Your task to perform on an android device: toggle notification dots Image 0: 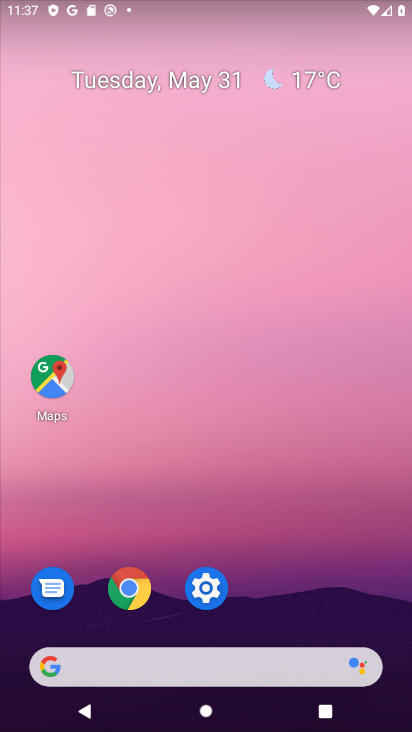
Step 0: press home button
Your task to perform on an android device: toggle notification dots Image 1: 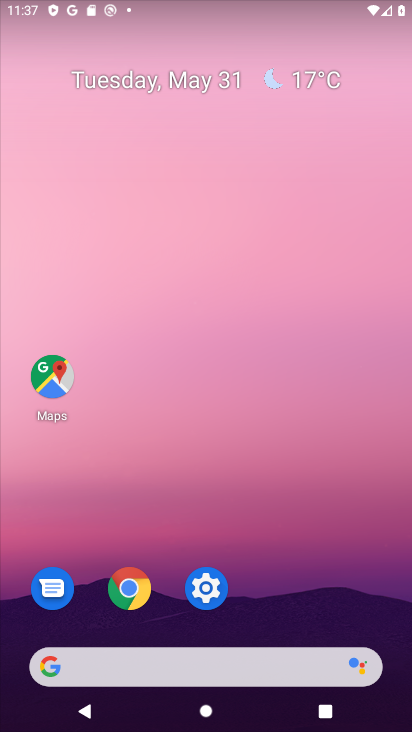
Step 1: click (196, 574)
Your task to perform on an android device: toggle notification dots Image 2: 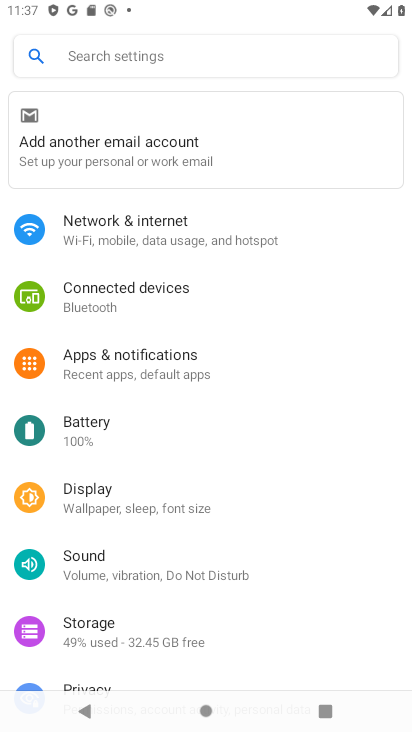
Step 2: click (123, 57)
Your task to perform on an android device: toggle notification dots Image 3: 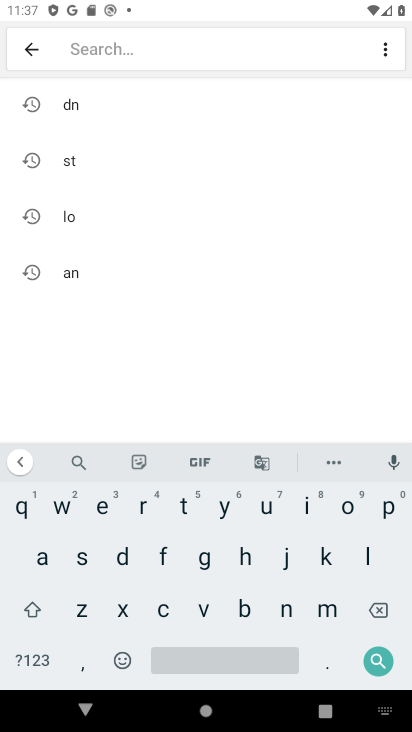
Step 3: click (120, 554)
Your task to perform on an android device: toggle notification dots Image 4: 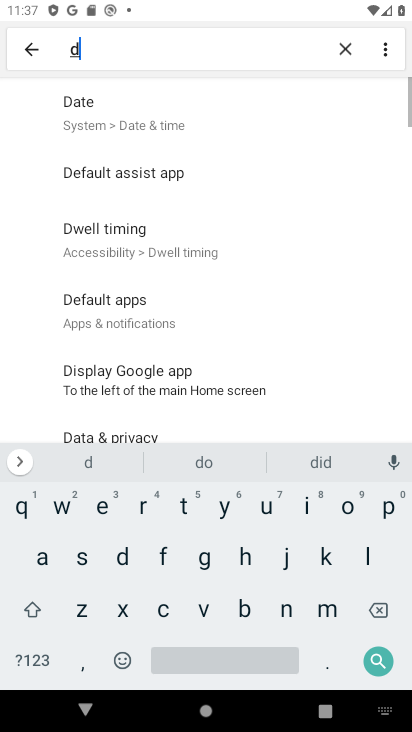
Step 4: click (355, 505)
Your task to perform on an android device: toggle notification dots Image 5: 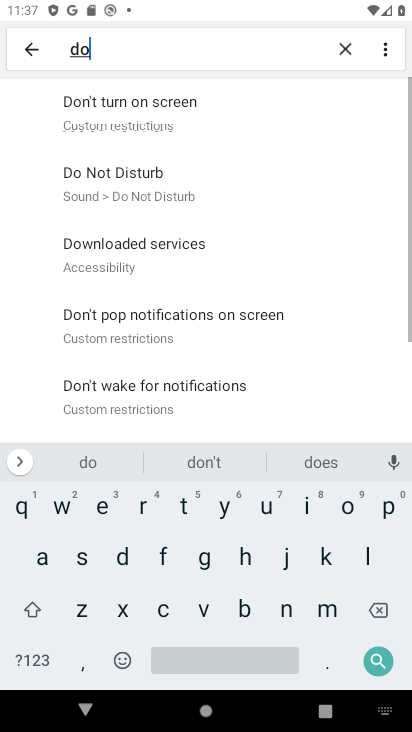
Step 5: click (184, 514)
Your task to perform on an android device: toggle notification dots Image 6: 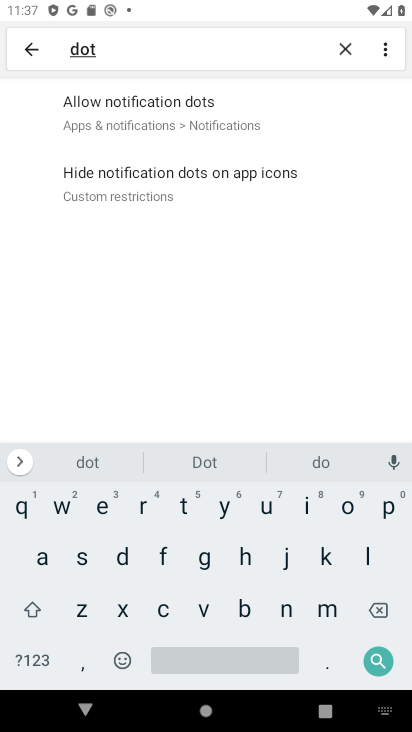
Step 6: click (149, 134)
Your task to perform on an android device: toggle notification dots Image 7: 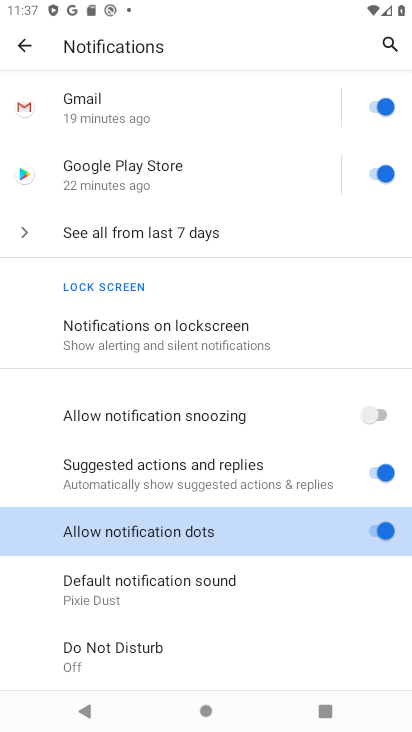
Step 7: task complete